Your task to perform on an android device: change timer sound Image 0: 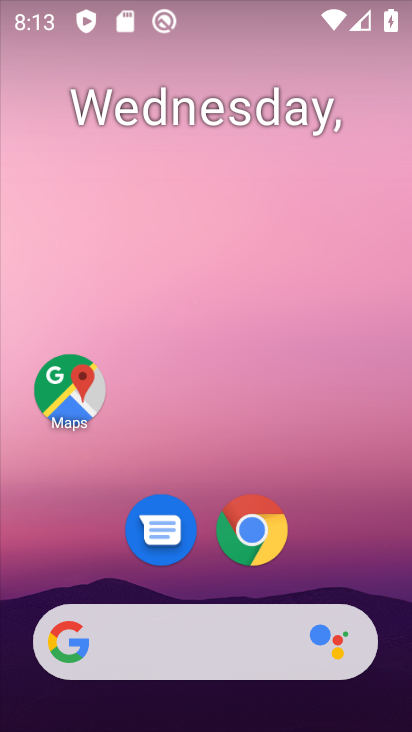
Step 0: click (264, 35)
Your task to perform on an android device: change timer sound Image 1: 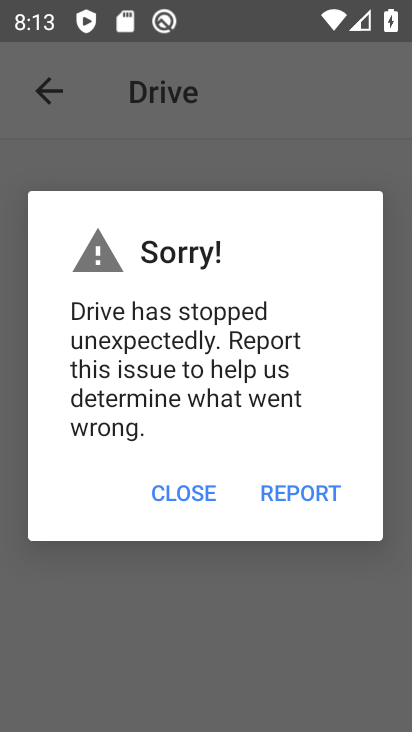
Step 1: press home button
Your task to perform on an android device: change timer sound Image 2: 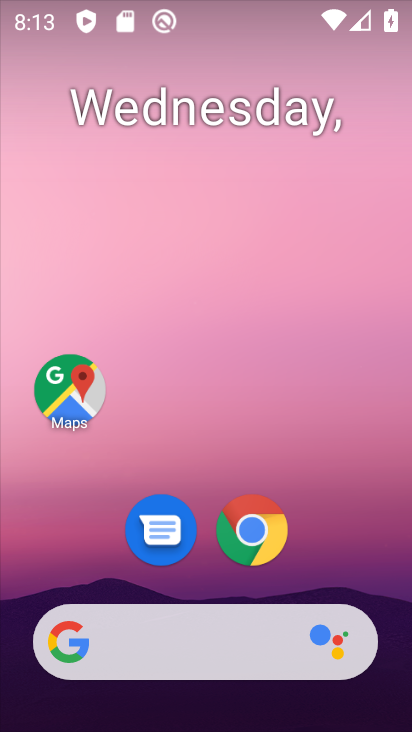
Step 2: drag from (283, 525) to (338, 48)
Your task to perform on an android device: change timer sound Image 3: 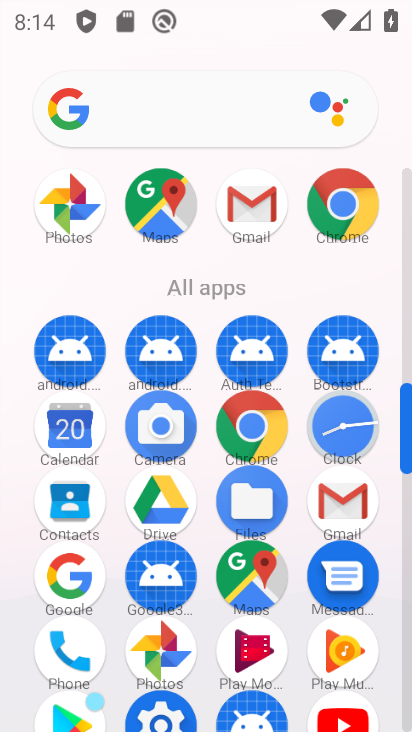
Step 3: click (326, 420)
Your task to perform on an android device: change timer sound Image 4: 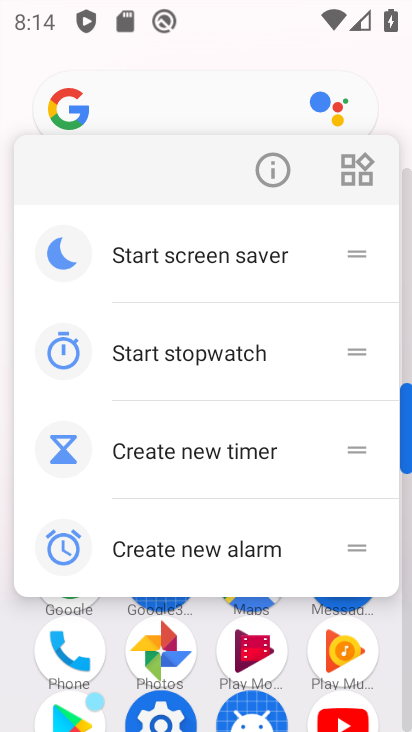
Step 4: click (160, 362)
Your task to perform on an android device: change timer sound Image 5: 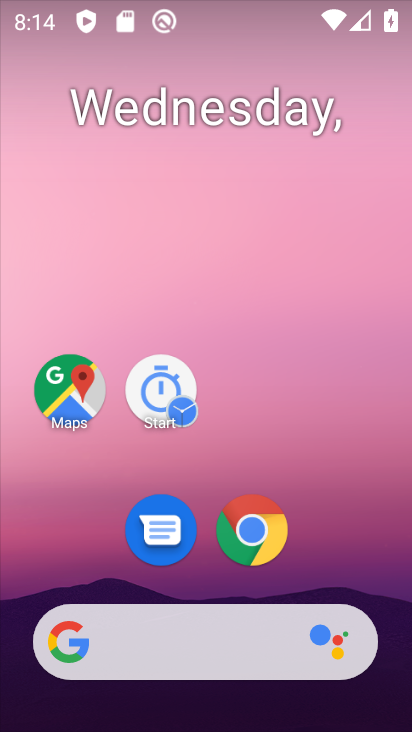
Step 5: drag from (355, 649) to (298, 60)
Your task to perform on an android device: change timer sound Image 6: 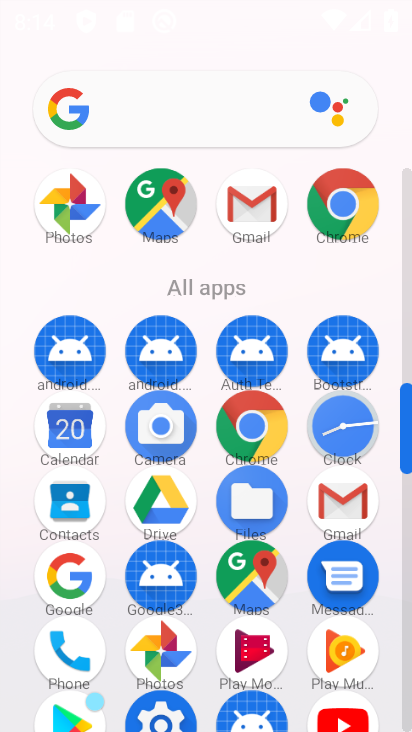
Step 6: drag from (326, 479) to (148, 12)
Your task to perform on an android device: change timer sound Image 7: 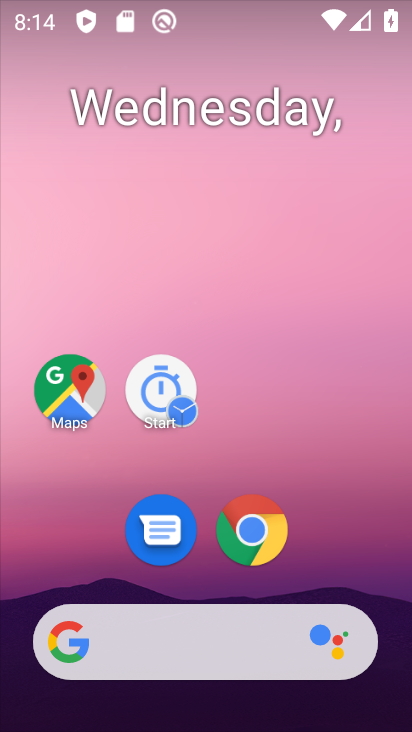
Step 7: drag from (323, 641) to (181, 153)
Your task to perform on an android device: change timer sound Image 8: 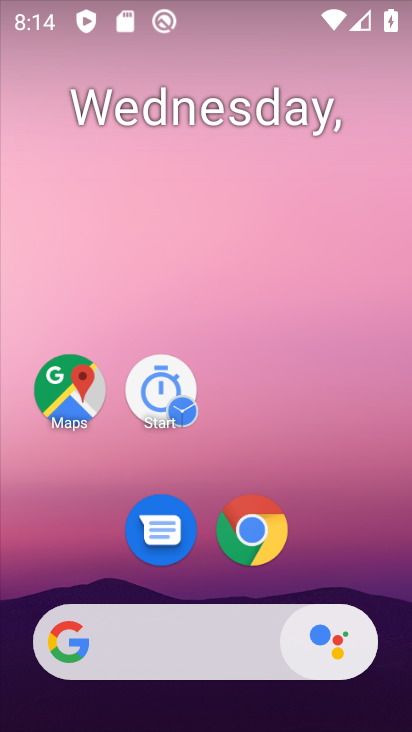
Step 8: drag from (361, 629) to (186, 79)
Your task to perform on an android device: change timer sound Image 9: 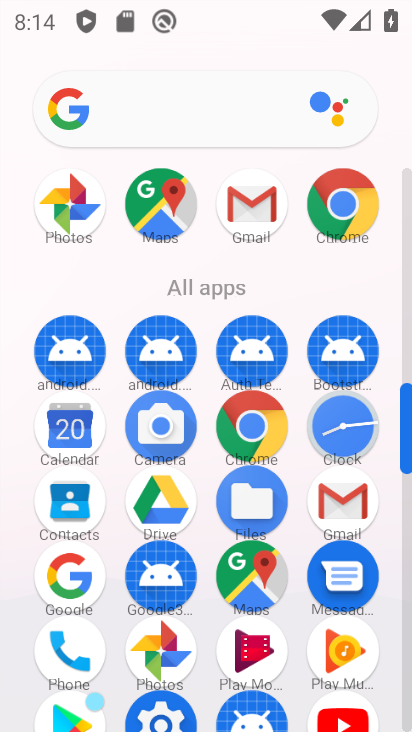
Step 9: drag from (305, 577) to (163, 101)
Your task to perform on an android device: change timer sound Image 10: 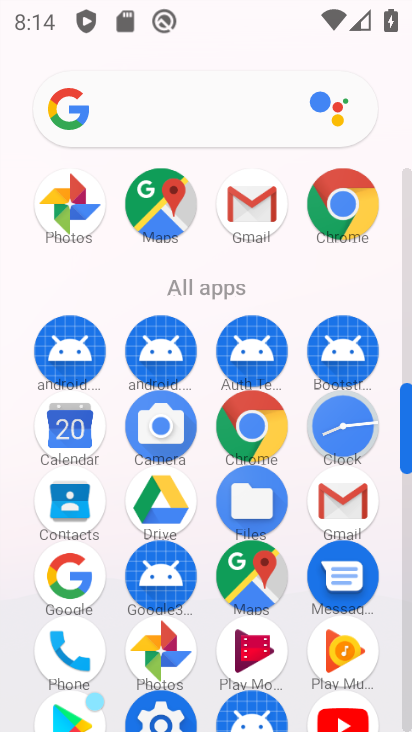
Step 10: click (334, 428)
Your task to perform on an android device: change timer sound Image 11: 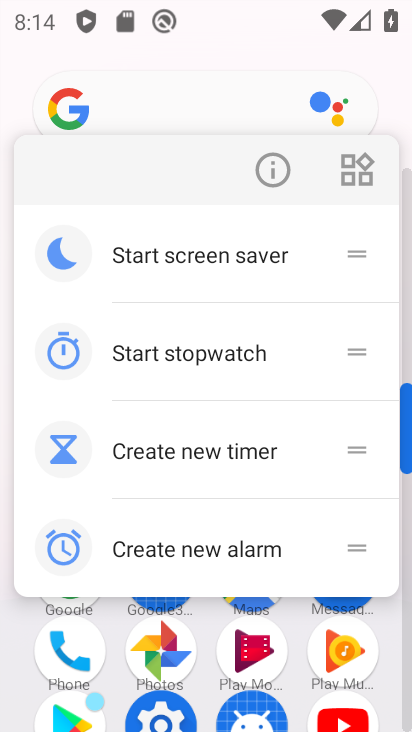
Step 11: drag from (329, 617) to (190, 166)
Your task to perform on an android device: change timer sound Image 12: 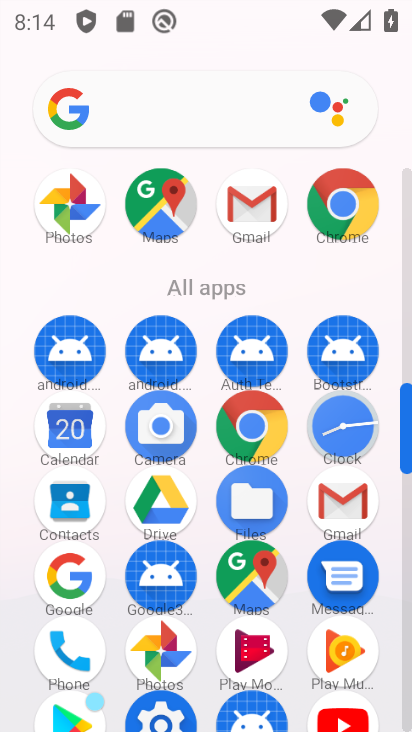
Step 12: click (342, 430)
Your task to perform on an android device: change timer sound Image 13: 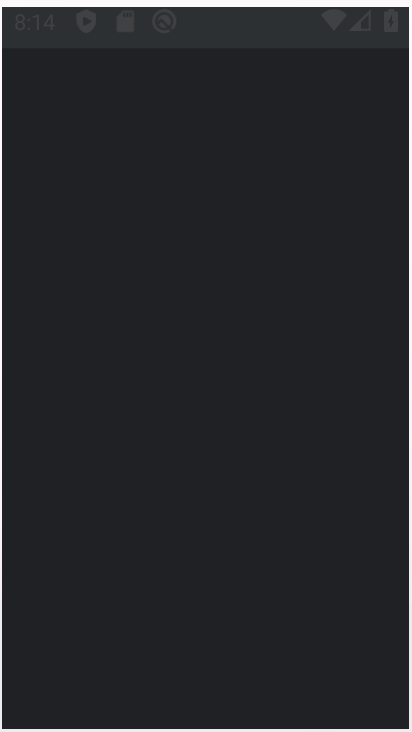
Step 13: click (329, 428)
Your task to perform on an android device: change timer sound Image 14: 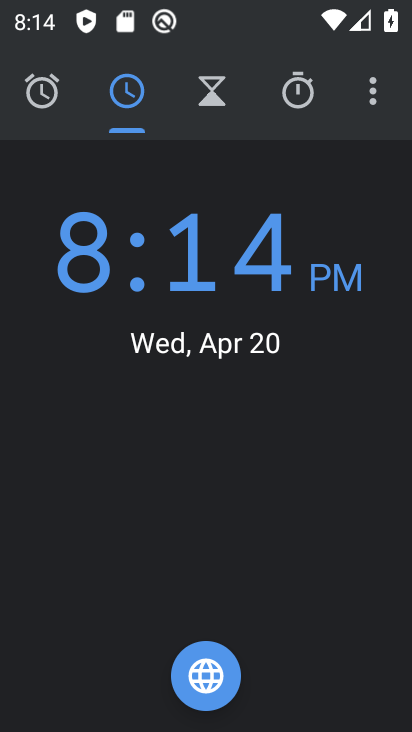
Step 14: click (372, 94)
Your task to perform on an android device: change timer sound Image 15: 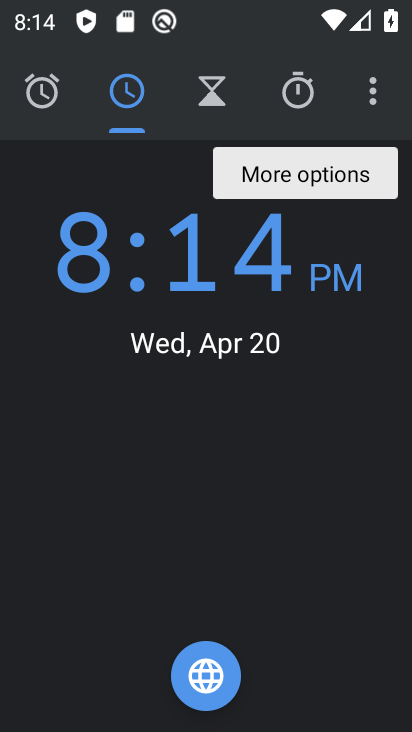
Step 15: click (334, 171)
Your task to perform on an android device: change timer sound Image 16: 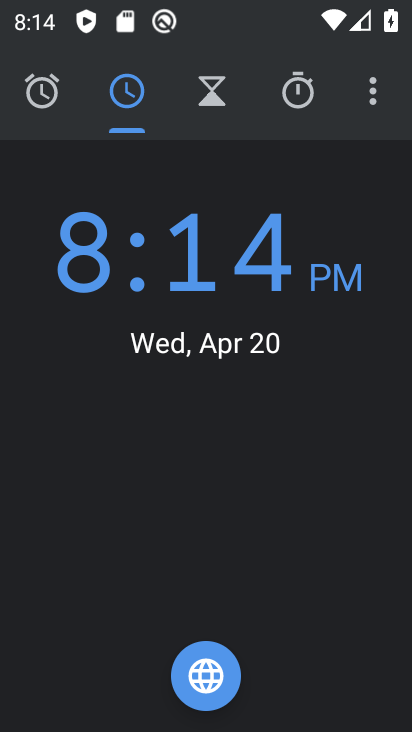
Step 16: click (334, 172)
Your task to perform on an android device: change timer sound Image 17: 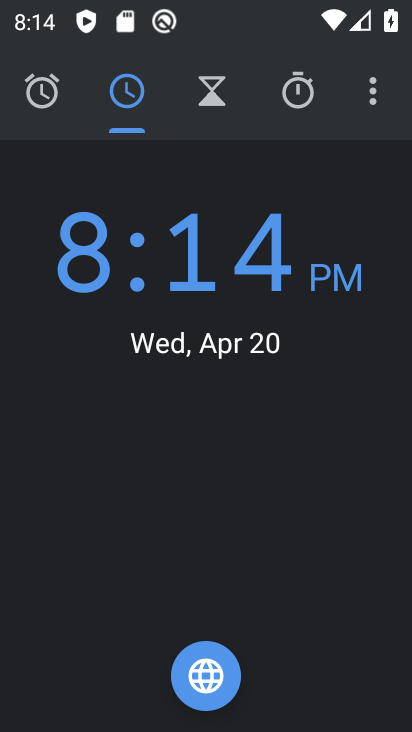
Step 17: click (375, 102)
Your task to perform on an android device: change timer sound Image 18: 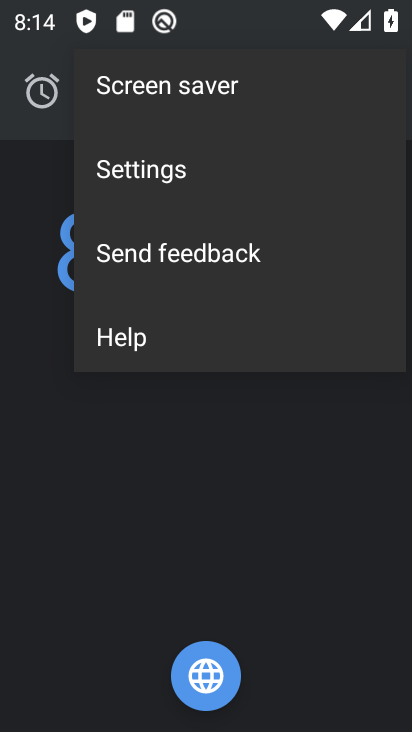
Step 18: click (370, 76)
Your task to perform on an android device: change timer sound Image 19: 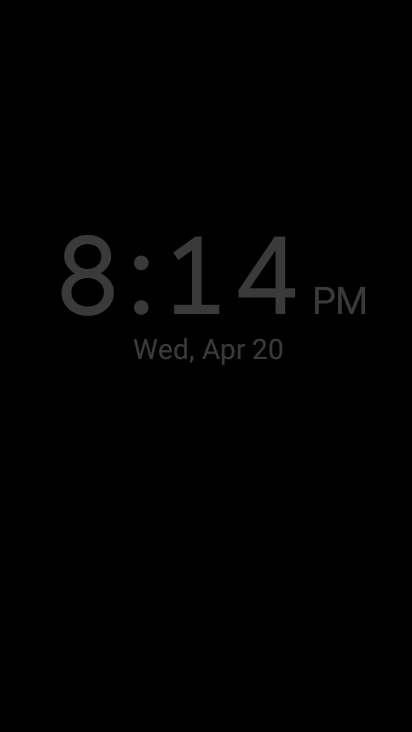
Step 19: click (155, 175)
Your task to perform on an android device: change timer sound Image 20: 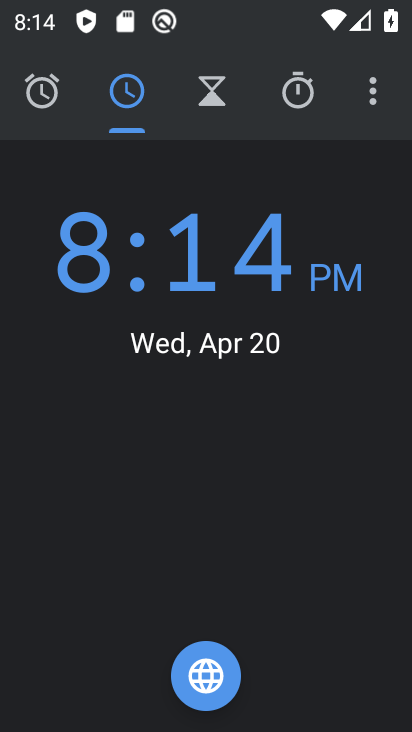
Step 20: click (373, 95)
Your task to perform on an android device: change timer sound Image 21: 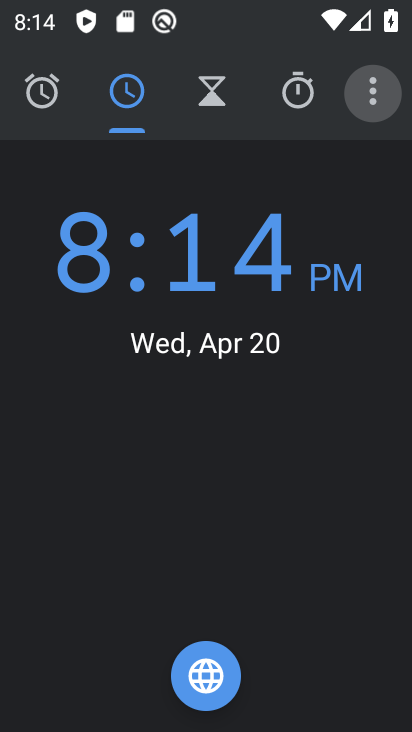
Step 21: click (373, 95)
Your task to perform on an android device: change timer sound Image 22: 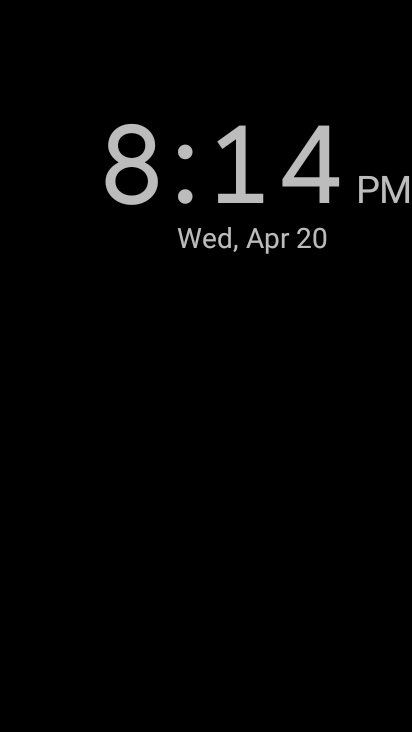
Step 22: press home button
Your task to perform on an android device: change timer sound Image 23: 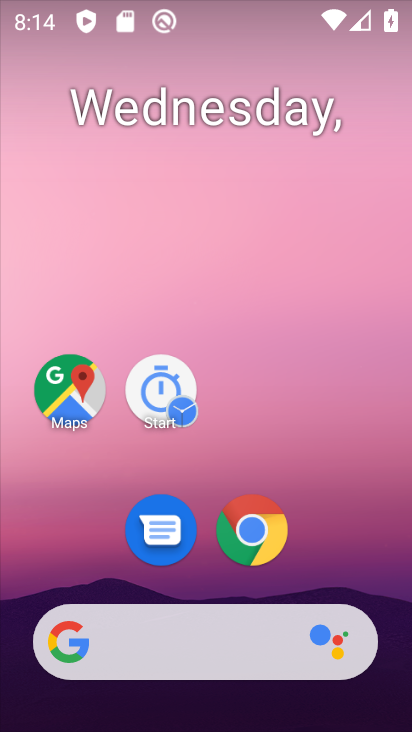
Step 23: drag from (336, 565) to (141, 22)
Your task to perform on an android device: change timer sound Image 24: 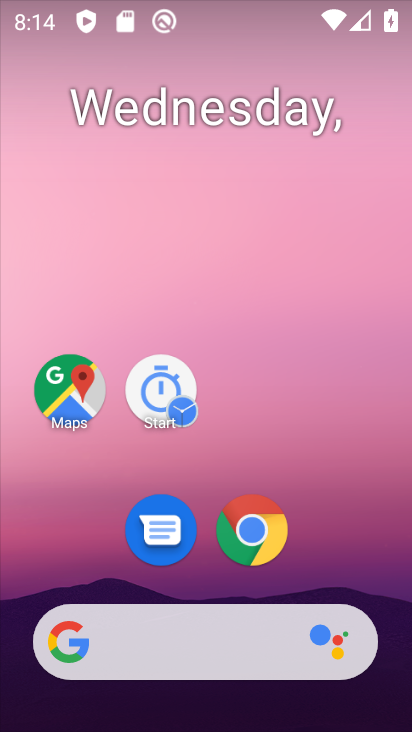
Step 24: drag from (324, 545) to (197, 270)
Your task to perform on an android device: change timer sound Image 25: 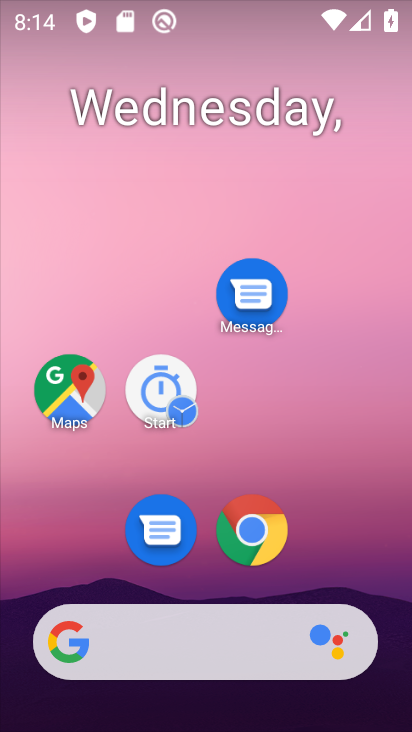
Step 25: drag from (318, 580) to (38, 14)
Your task to perform on an android device: change timer sound Image 26: 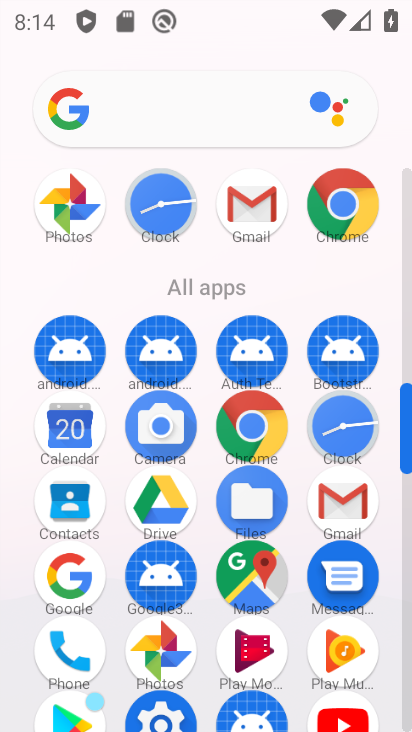
Step 26: click (347, 433)
Your task to perform on an android device: change timer sound Image 27: 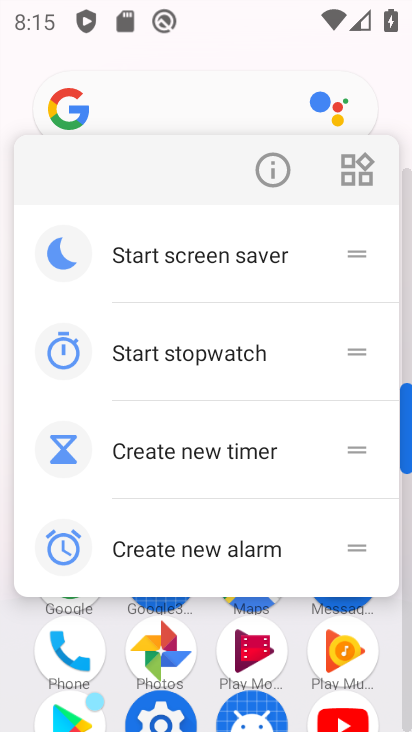
Step 27: click (392, 605)
Your task to perform on an android device: change timer sound Image 28: 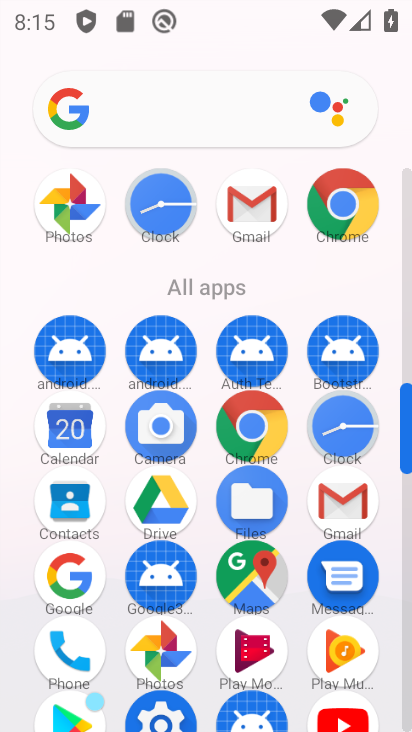
Step 28: click (325, 419)
Your task to perform on an android device: change timer sound Image 29: 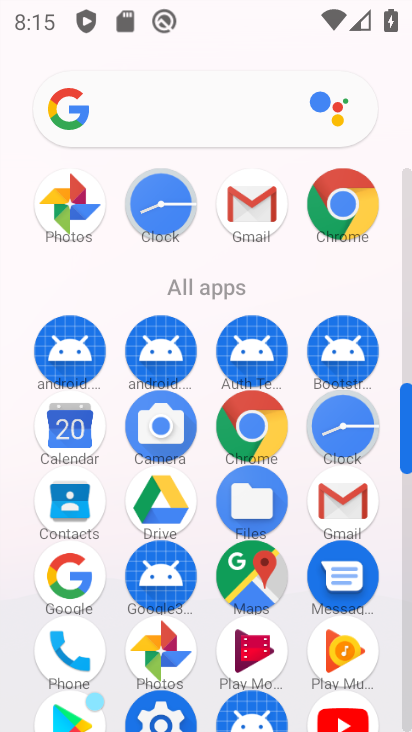
Step 29: click (325, 419)
Your task to perform on an android device: change timer sound Image 30: 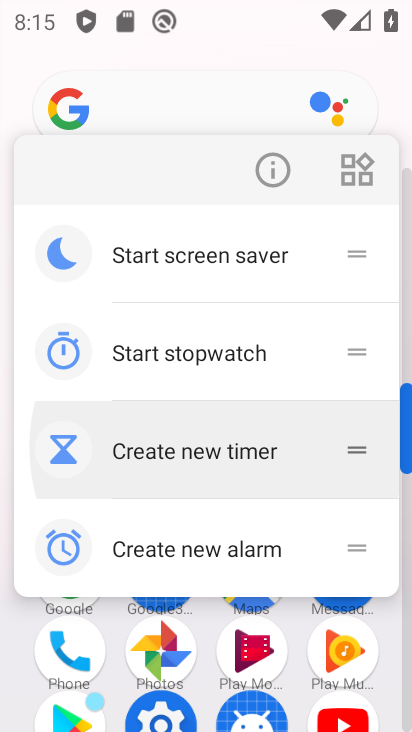
Step 30: click (325, 419)
Your task to perform on an android device: change timer sound Image 31: 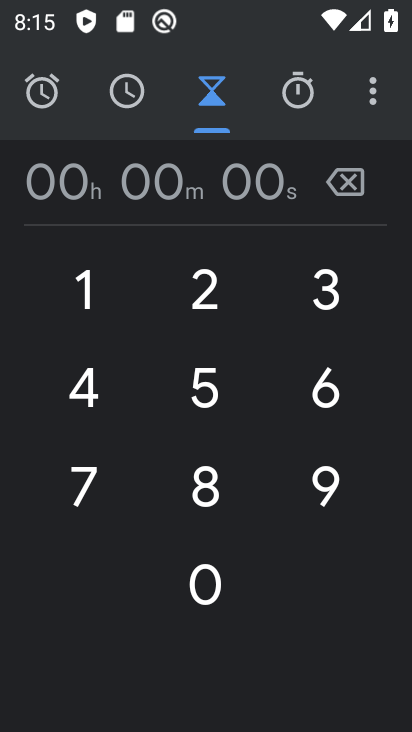
Step 31: click (377, 92)
Your task to perform on an android device: change timer sound Image 32: 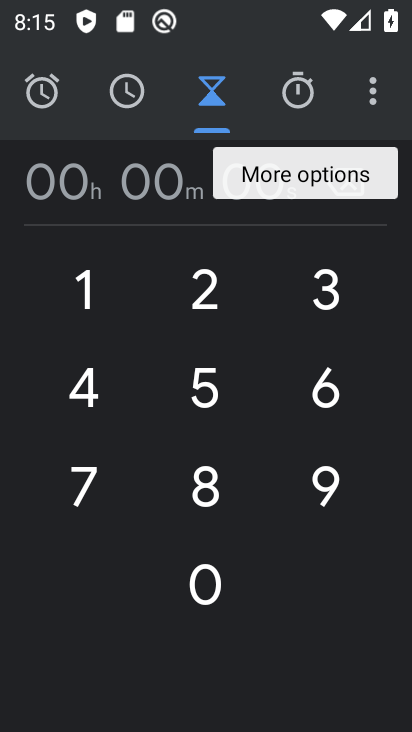
Step 32: drag from (375, 92) to (388, 133)
Your task to perform on an android device: change timer sound Image 33: 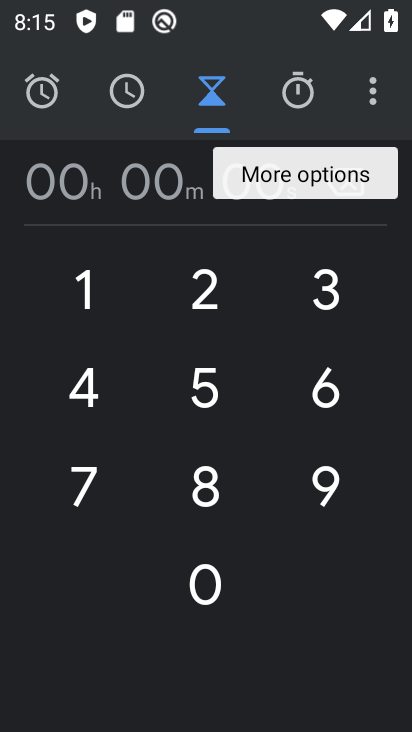
Step 33: click (371, 79)
Your task to perform on an android device: change timer sound Image 34: 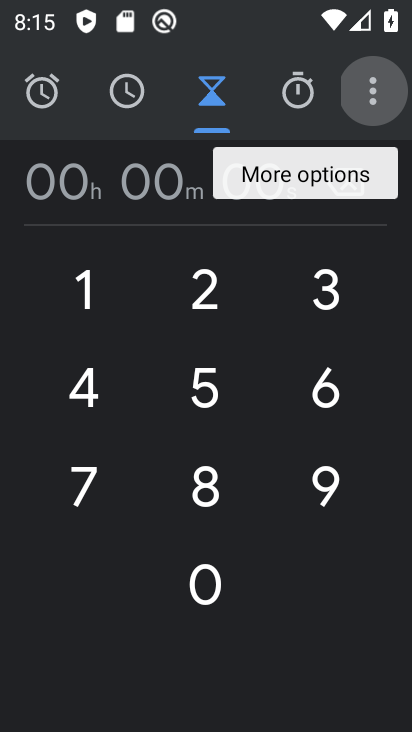
Step 34: drag from (372, 80) to (386, 142)
Your task to perform on an android device: change timer sound Image 35: 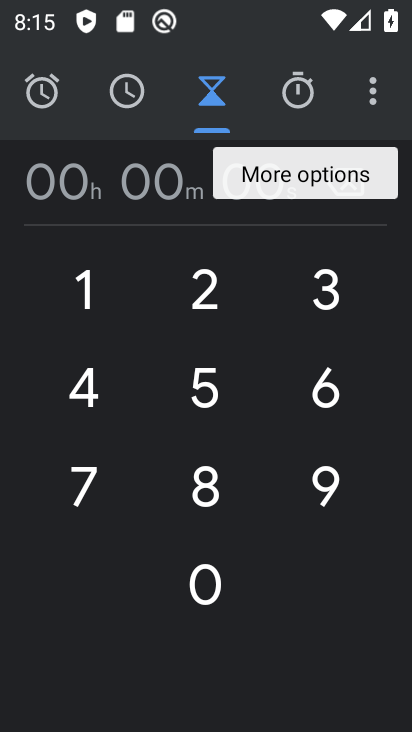
Step 35: drag from (372, 88) to (302, 471)
Your task to perform on an android device: change timer sound Image 36: 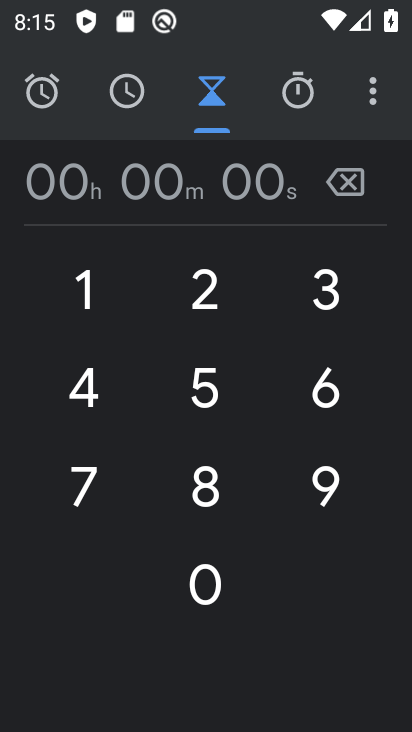
Step 36: drag from (370, 82) to (232, 94)
Your task to perform on an android device: change timer sound Image 37: 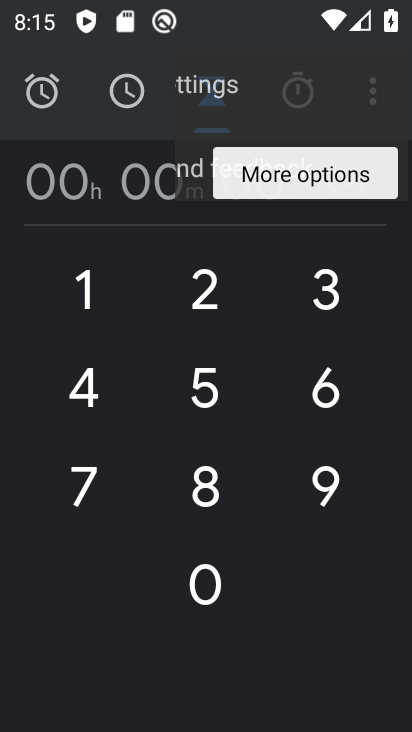
Step 37: drag from (359, 84) to (231, 327)
Your task to perform on an android device: change timer sound Image 38: 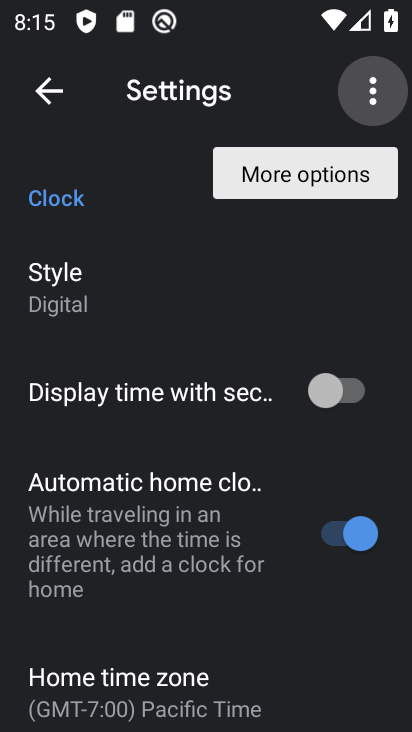
Step 38: drag from (190, 546) to (157, 200)
Your task to perform on an android device: change timer sound Image 39: 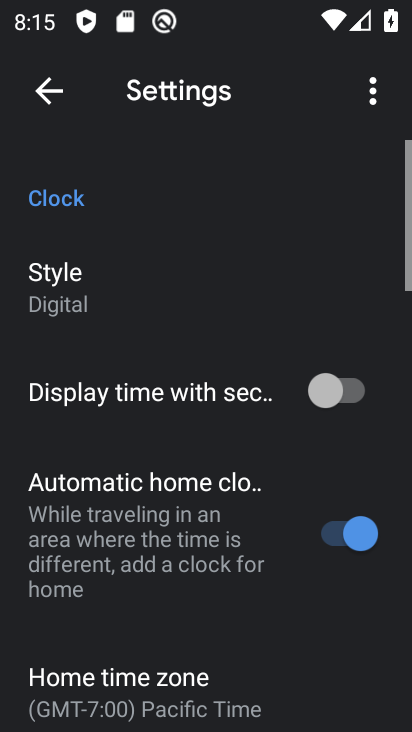
Step 39: drag from (190, 620) to (202, 241)
Your task to perform on an android device: change timer sound Image 40: 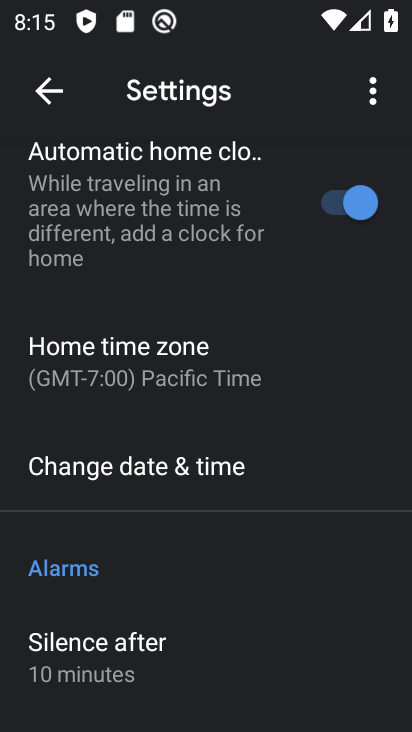
Step 40: drag from (133, 649) to (54, 208)
Your task to perform on an android device: change timer sound Image 41: 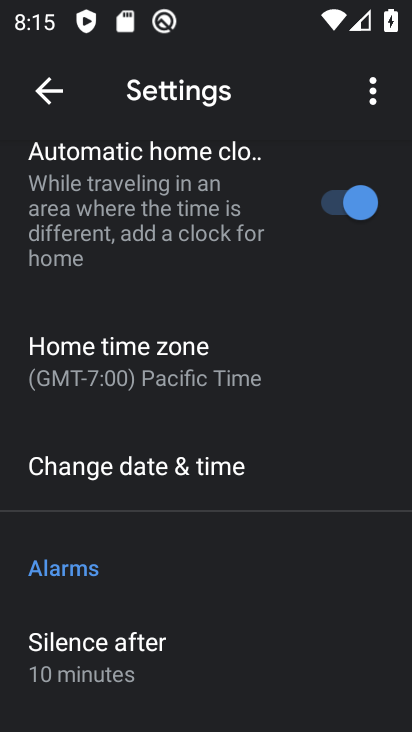
Step 41: drag from (134, 577) to (165, 77)
Your task to perform on an android device: change timer sound Image 42: 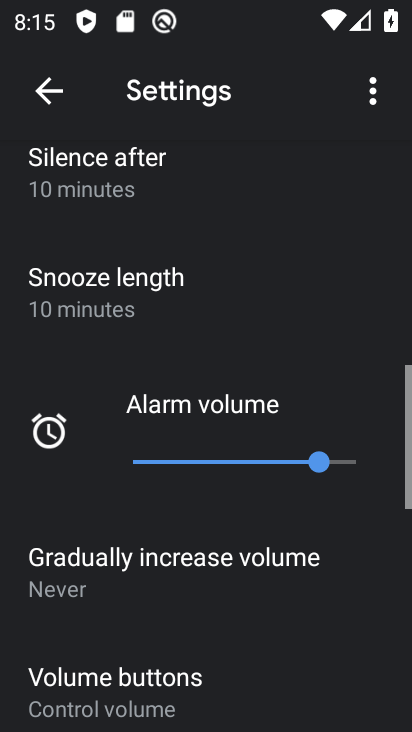
Step 42: drag from (177, 530) to (206, 120)
Your task to perform on an android device: change timer sound Image 43: 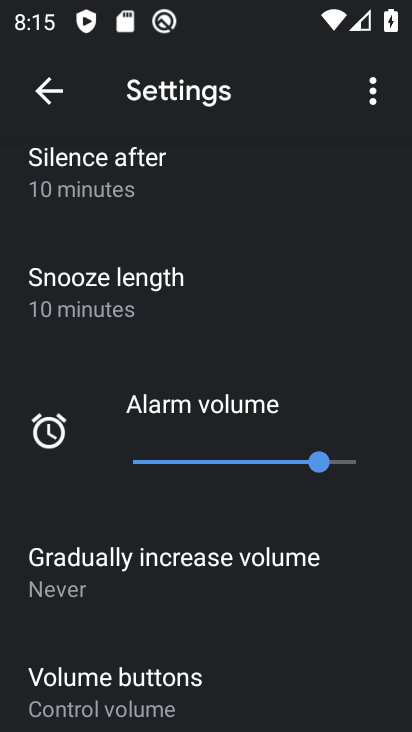
Step 43: drag from (156, 625) to (102, 188)
Your task to perform on an android device: change timer sound Image 44: 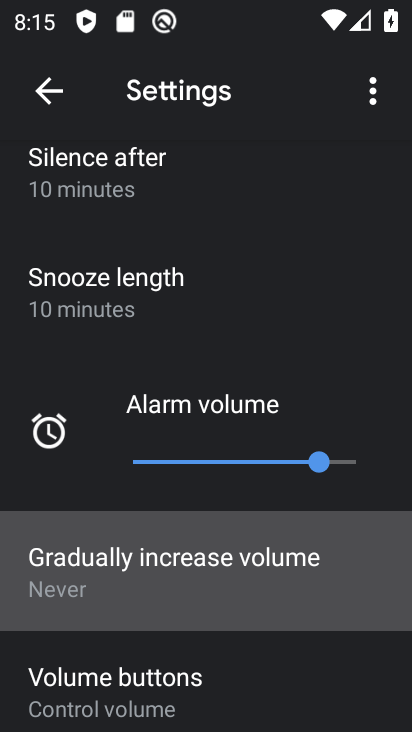
Step 44: drag from (125, 585) to (139, 212)
Your task to perform on an android device: change timer sound Image 45: 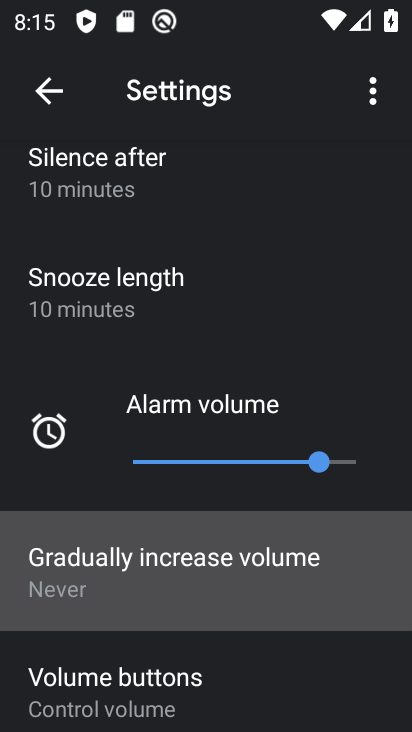
Step 45: drag from (160, 654) to (145, 154)
Your task to perform on an android device: change timer sound Image 46: 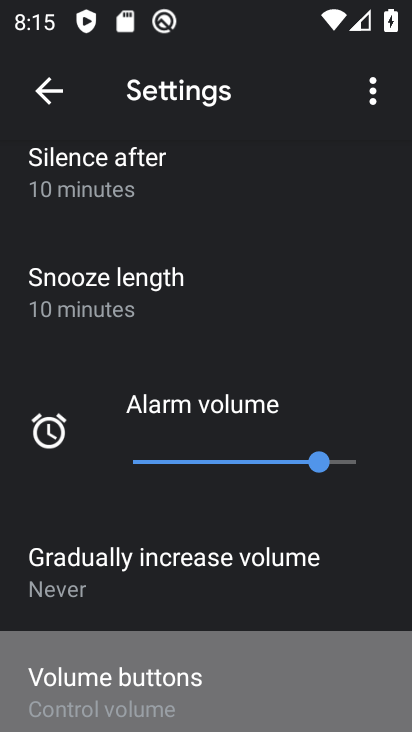
Step 46: drag from (185, 608) to (158, 96)
Your task to perform on an android device: change timer sound Image 47: 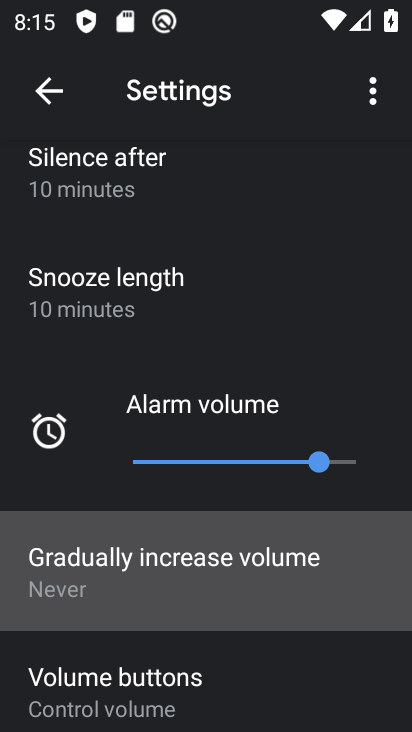
Step 47: drag from (189, 628) to (123, 60)
Your task to perform on an android device: change timer sound Image 48: 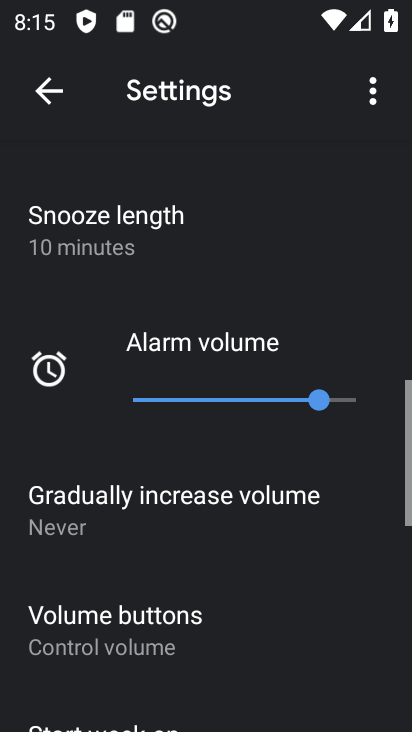
Step 48: drag from (225, 611) to (150, 31)
Your task to perform on an android device: change timer sound Image 49: 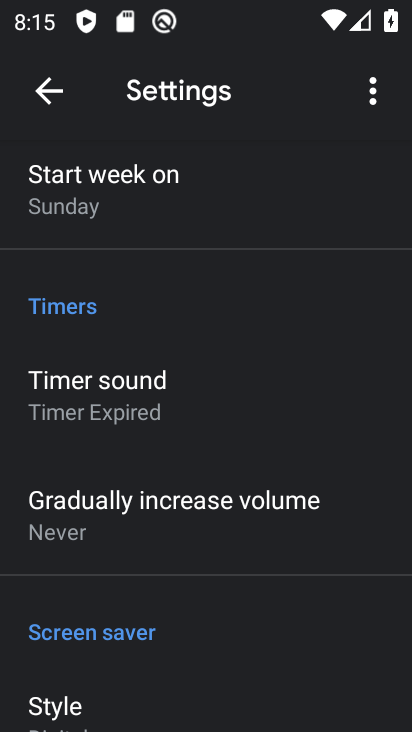
Step 49: click (82, 389)
Your task to perform on an android device: change timer sound Image 50: 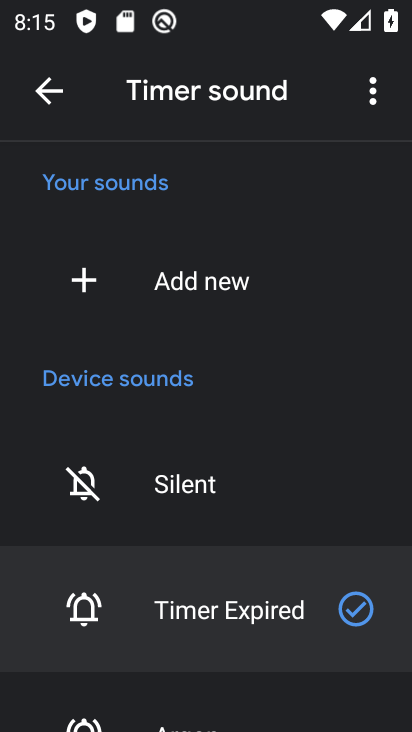
Step 50: click (83, 486)
Your task to perform on an android device: change timer sound Image 51: 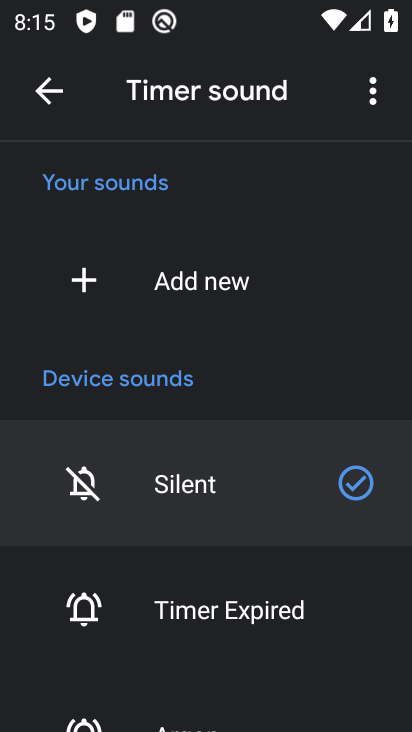
Step 51: click (84, 475)
Your task to perform on an android device: change timer sound Image 52: 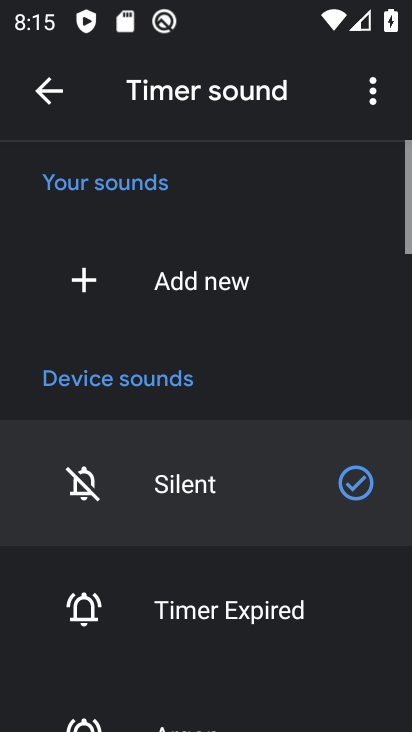
Step 52: click (84, 475)
Your task to perform on an android device: change timer sound Image 53: 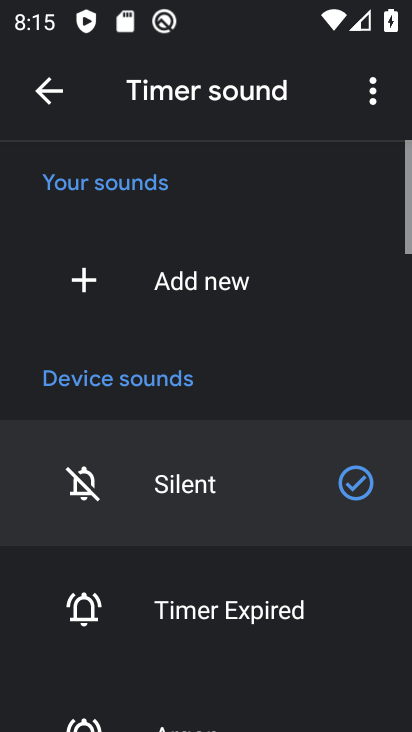
Step 53: drag from (86, 674) to (71, 572)
Your task to perform on an android device: change timer sound Image 54: 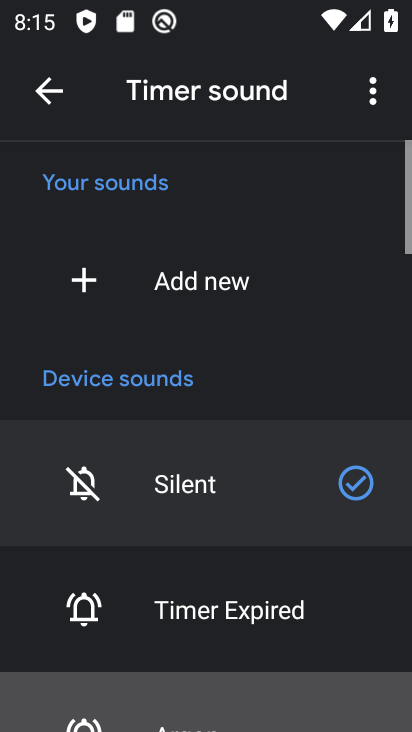
Step 54: drag from (111, 627) to (124, 351)
Your task to perform on an android device: change timer sound Image 55: 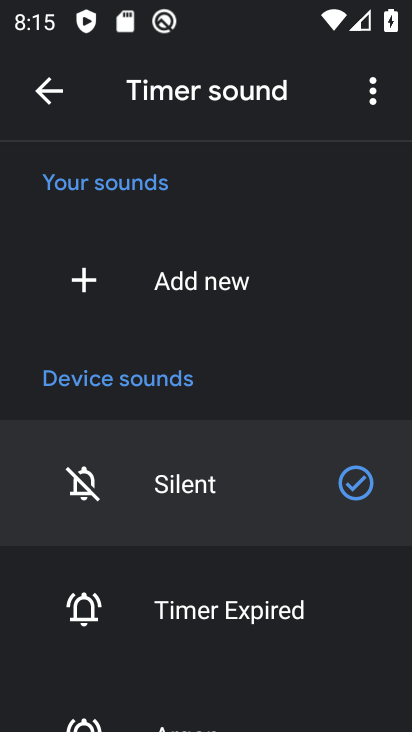
Step 55: drag from (141, 692) to (128, 285)
Your task to perform on an android device: change timer sound Image 56: 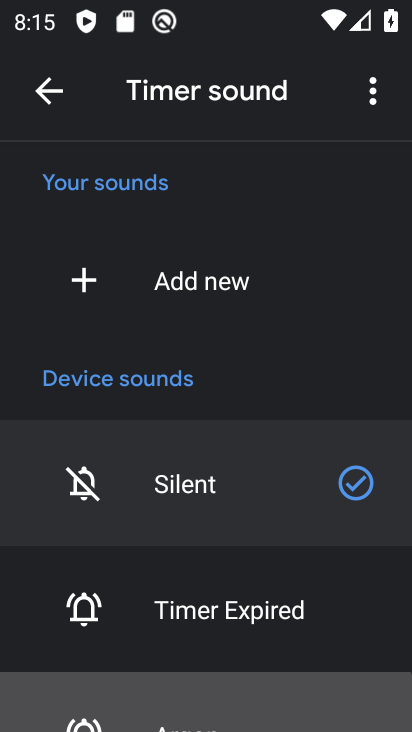
Step 56: drag from (265, 662) to (249, 234)
Your task to perform on an android device: change timer sound Image 57: 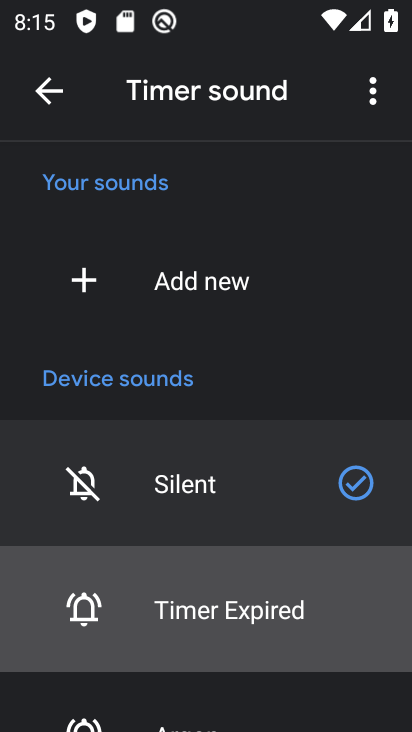
Step 57: drag from (284, 609) to (288, 110)
Your task to perform on an android device: change timer sound Image 58: 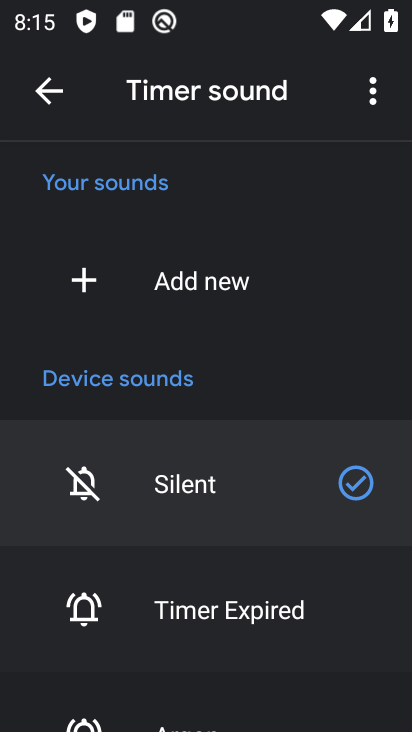
Step 58: drag from (271, 612) to (258, 205)
Your task to perform on an android device: change timer sound Image 59: 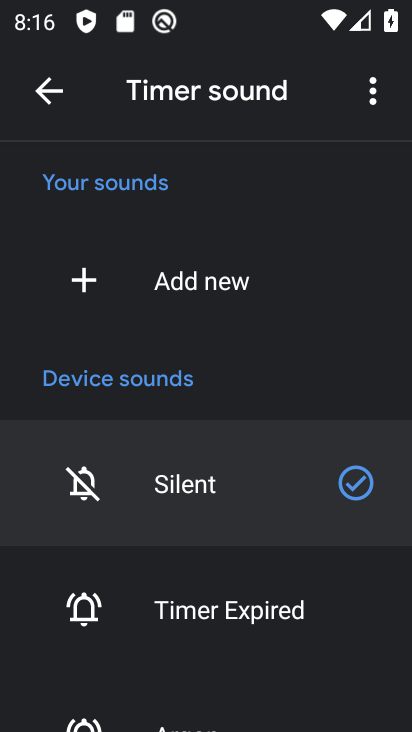
Step 59: click (337, 493)
Your task to perform on an android device: change timer sound Image 60: 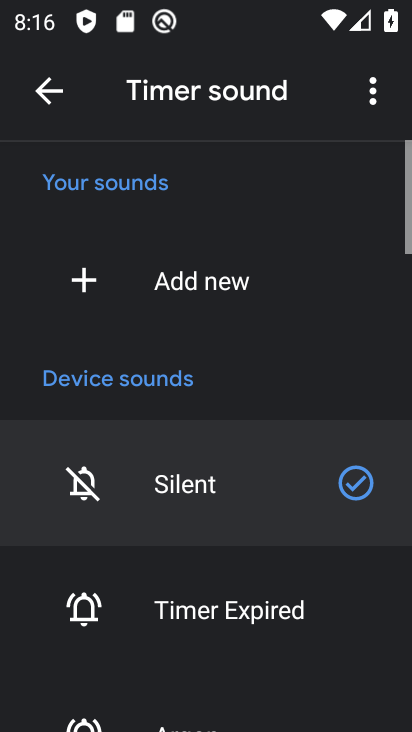
Step 60: click (85, 491)
Your task to perform on an android device: change timer sound Image 61: 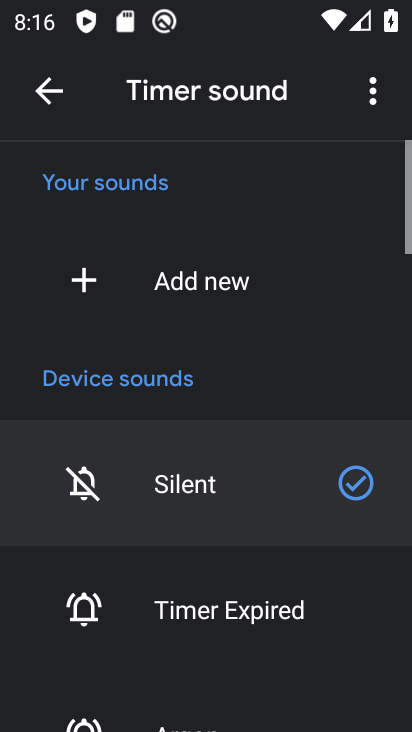
Step 61: click (84, 614)
Your task to perform on an android device: change timer sound Image 62: 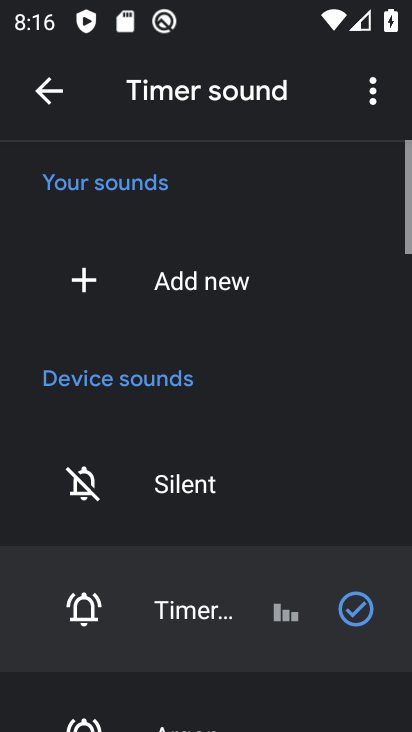
Step 62: drag from (239, 639) to (221, 410)
Your task to perform on an android device: change timer sound Image 63: 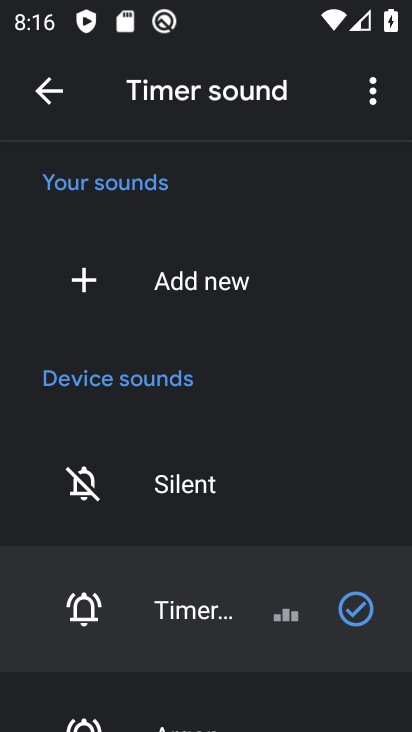
Step 63: click (85, 724)
Your task to perform on an android device: change timer sound Image 64: 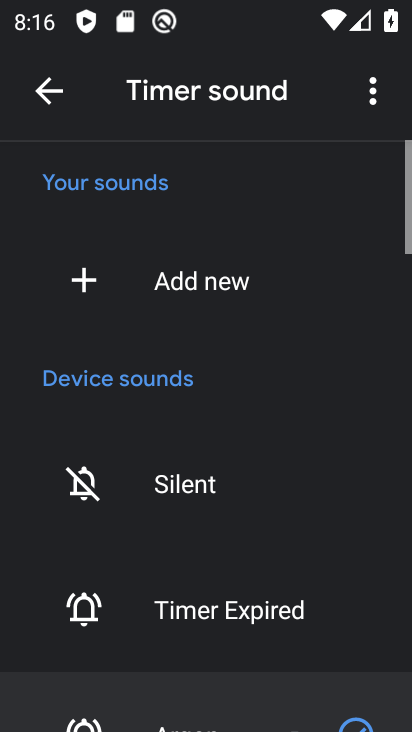
Step 64: task complete